Your task to perform on an android device: turn vacation reply on in the gmail app Image 0: 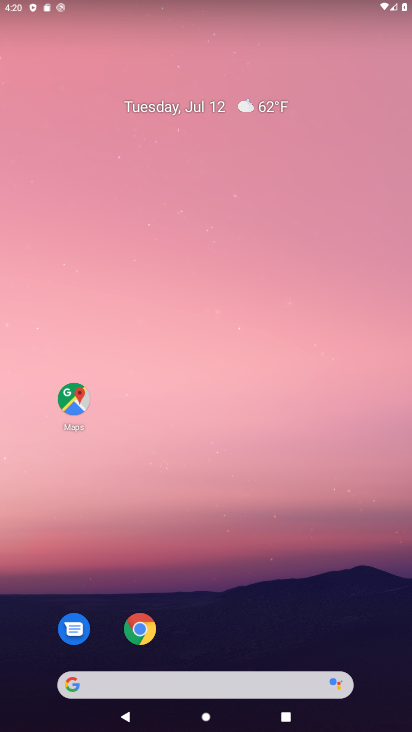
Step 0: drag from (210, 650) to (150, 79)
Your task to perform on an android device: turn vacation reply on in the gmail app Image 1: 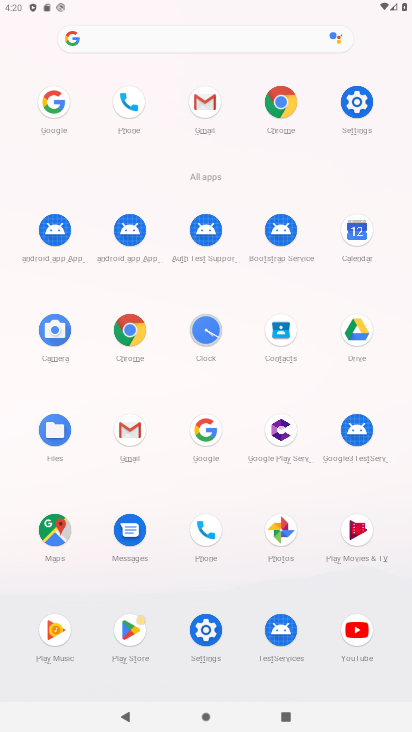
Step 1: click (197, 633)
Your task to perform on an android device: turn vacation reply on in the gmail app Image 2: 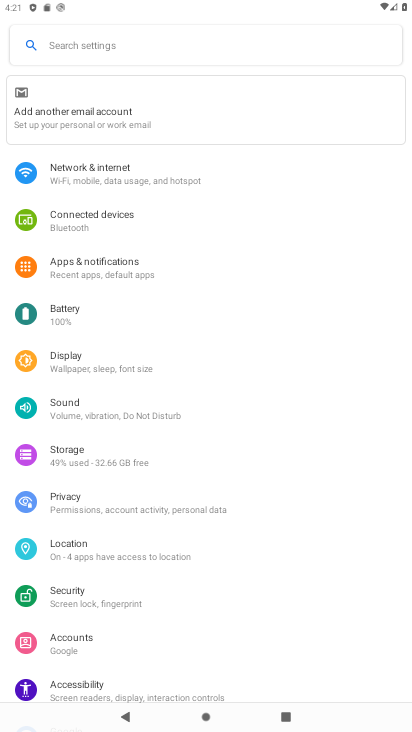
Step 2: press home button
Your task to perform on an android device: turn vacation reply on in the gmail app Image 3: 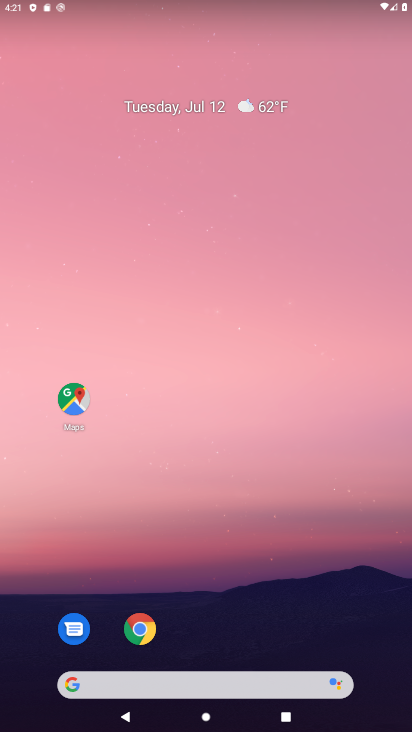
Step 3: drag from (207, 645) to (188, 29)
Your task to perform on an android device: turn vacation reply on in the gmail app Image 4: 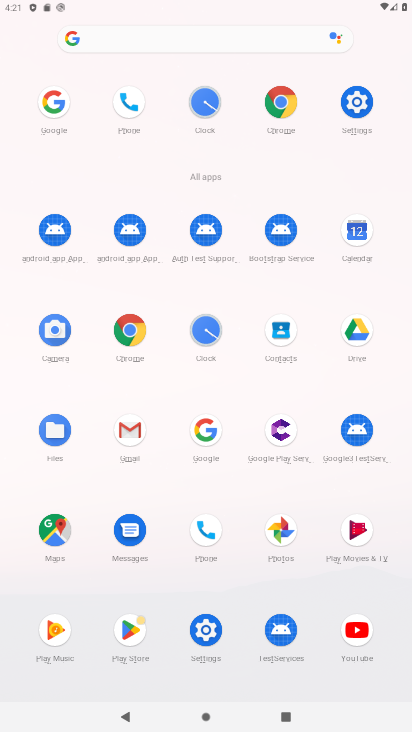
Step 4: click (135, 436)
Your task to perform on an android device: turn vacation reply on in the gmail app Image 5: 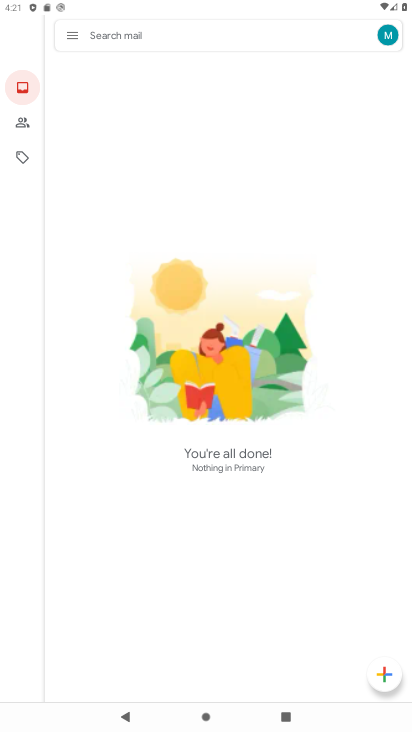
Step 5: click (67, 34)
Your task to perform on an android device: turn vacation reply on in the gmail app Image 6: 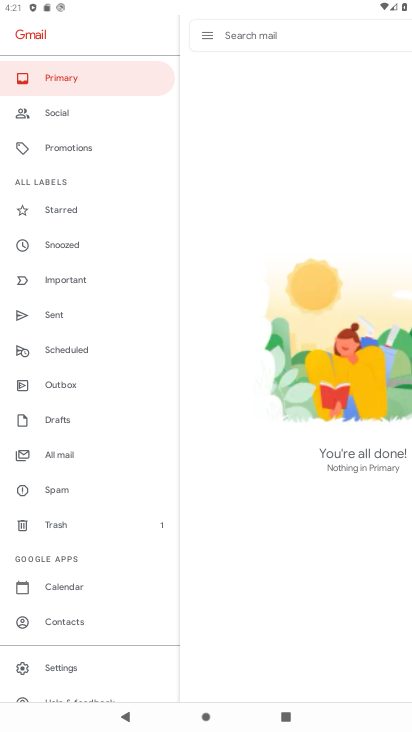
Step 6: click (71, 666)
Your task to perform on an android device: turn vacation reply on in the gmail app Image 7: 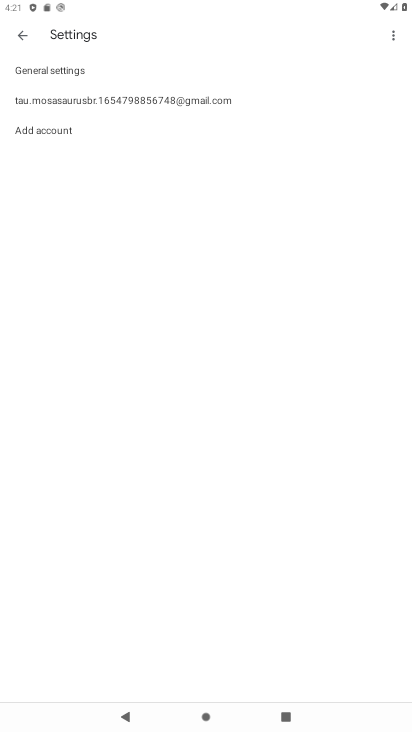
Step 7: click (104, 102)
Your task to perform on an android device: turn vacation reply on in the gmail app Image 8: 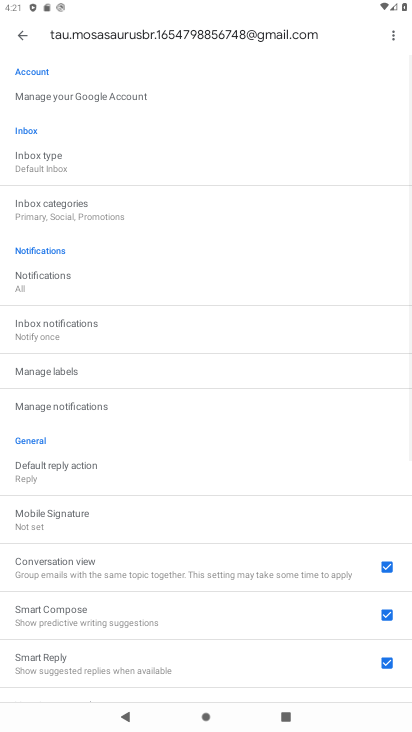
Step 8: drag from (79, 610) to (73, 428)
Your task to perform on an android device: turn vacation reply on in the gmail app Image 9: 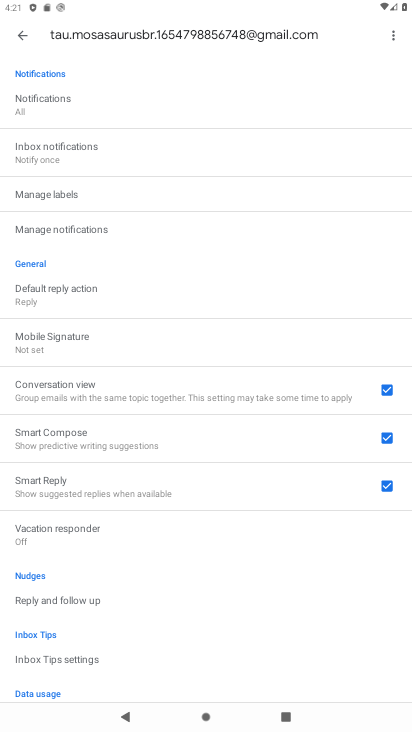
Step 9: click (93, 526)
Your task to perform on an android device: turn vacation reply on in the gmail app Image 10: 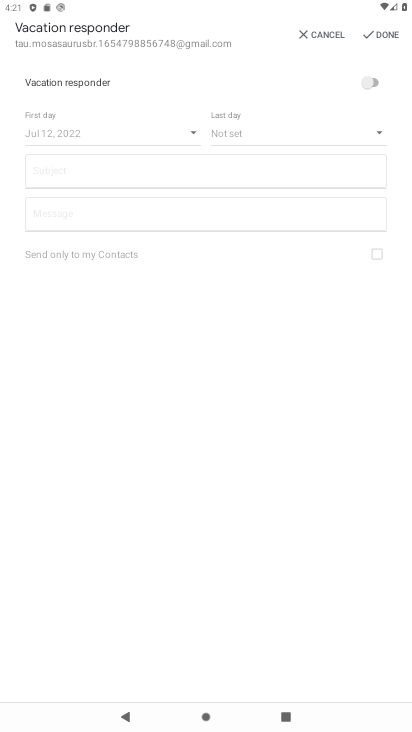
Step 10: click (373, 73)
Your task to perform on an android device: turn vacation reply on in the gmail app Image 11: 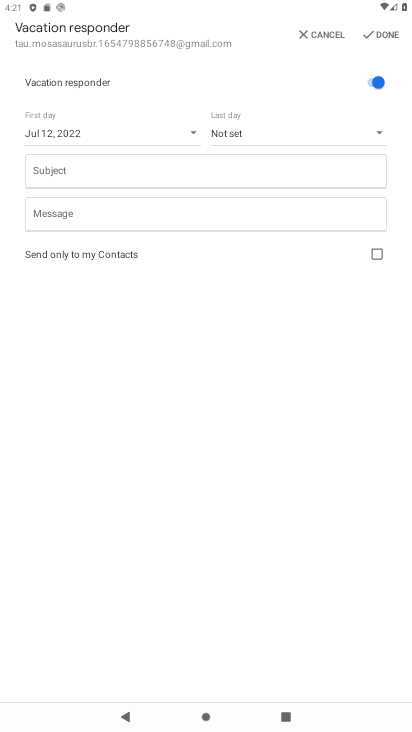
Step 11: task complete